Your task to perform on an android device: Open Google Chrome and click the shortcut for Amazon.com Image 0: 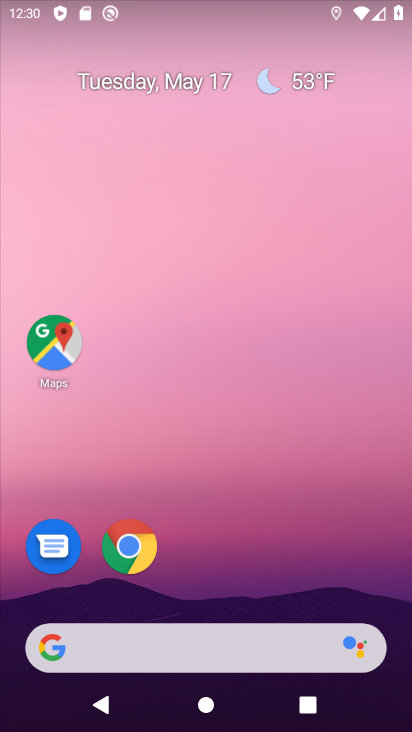
Step 0: click (137, 527)
Your task to perform on an android device: Open Google Chrome and click the shortcut for Amazon.com Image 1: 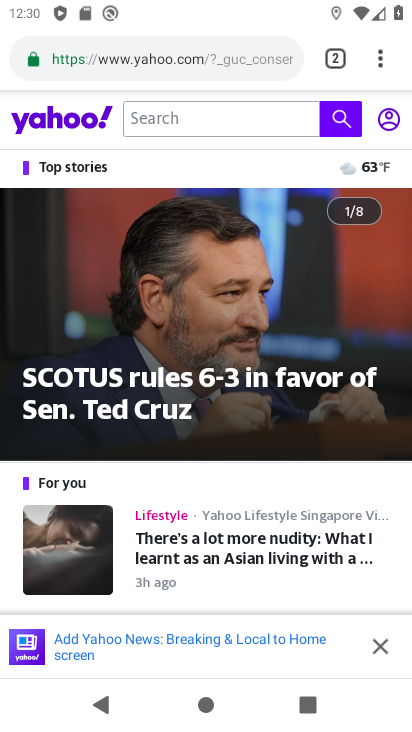
Step 1: click (334, 67)
Your task to perform on an android device: Open Google Chrome and click the shortcut for Amazon.com Image 2: 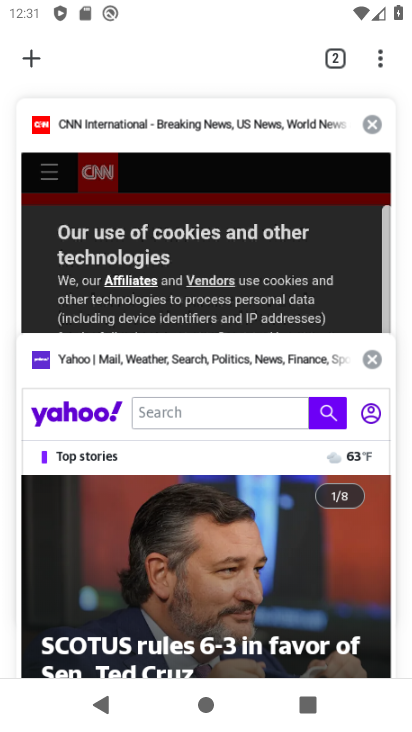
Step 2: click (22, 51)
Your task to perform on an android device: Open Google Chrome and click the shortcut for Amazon.com Image 3: 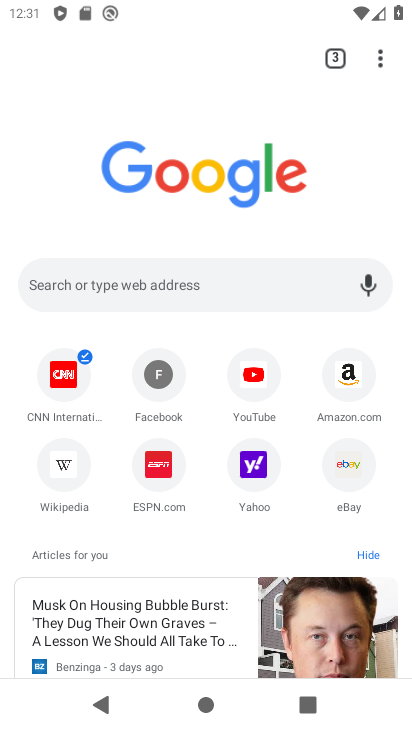
Step 3: click (359, 363)
Your task to perform on an android device: Open Google Chrome and click the shortcut for Amazon.com Image 4: 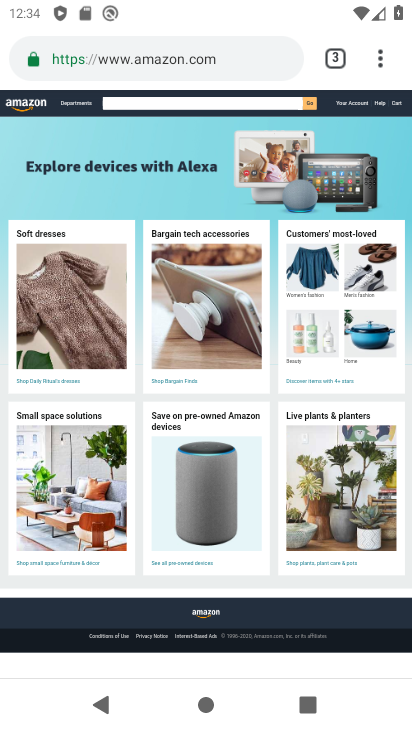
Step 4: task complete